Your task to perform on an android device: Go to location settings Image 0: 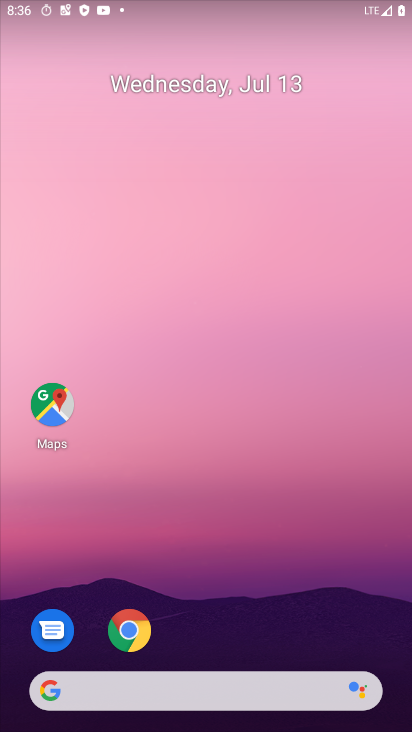
Step 0: drag from (326, 627) to (349, 93)
Your task to perform on an android device: Go to location settings Image 1: 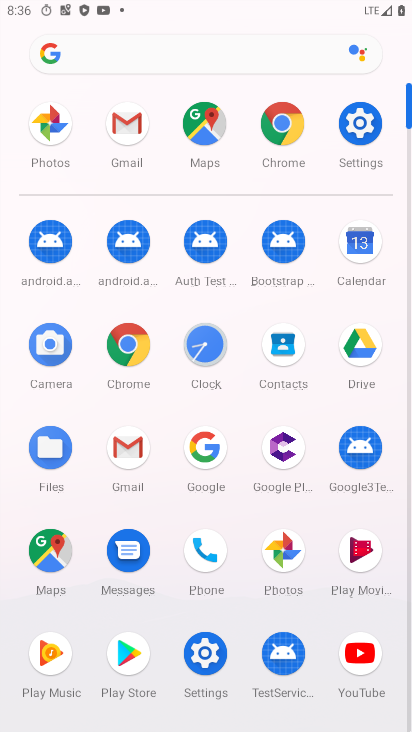
Step 1: click (367, 129)
Your task to perform on an android device: Go to location settings Image 2: 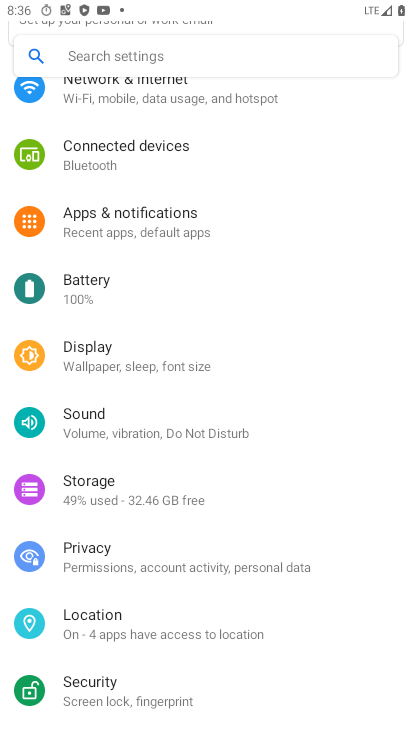
Step 2: drag from (349, 198) to (343, 425)
Your task to perform on an android device: Go to location settings Image 3: 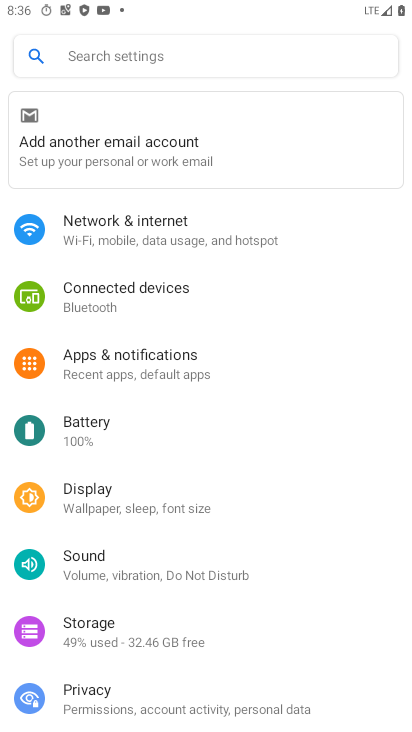
Step 3: drag from (343, 465) to (345, 403)
Your task to perform on an android device: Go to location settings Image 4: 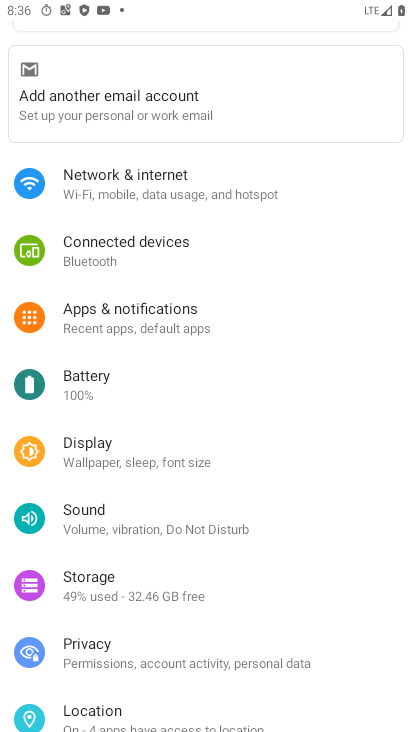
Step 4: drag from (345, 456) to (342, 371)
Your task to perform on an android device: Go to location settings Image 5: 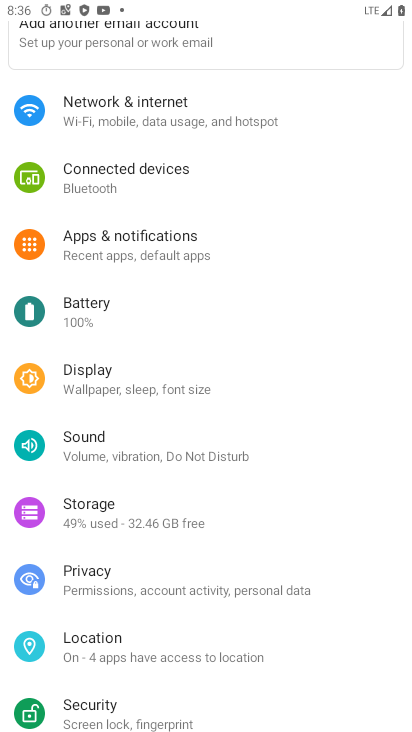
Step 5: drag from (342, 461) to (359, 235)
Your task to perform on an android device: Go to location settings Image 6: 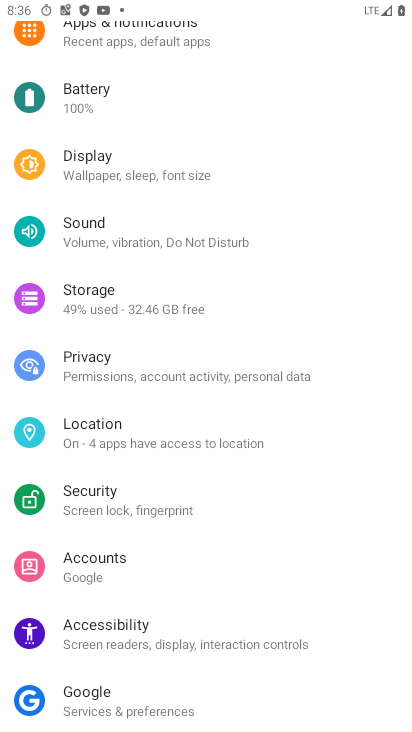
Step 6: drag from (341, 517) to (377, 264)
Your task to perform on an android device: Go to location settings Image 7: 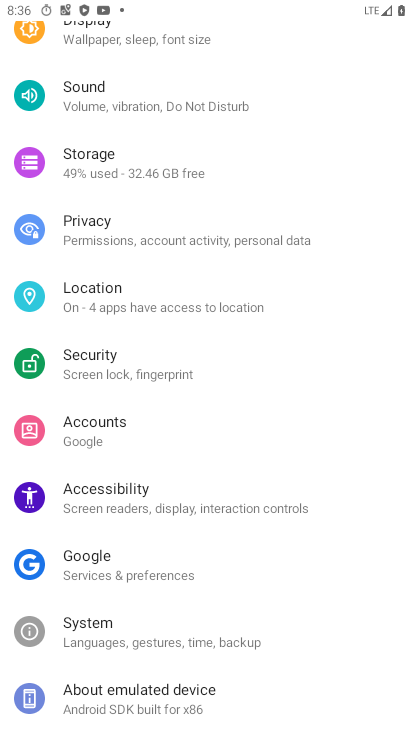
Step 7: click (259, 306)
Your task to perform on an android device: Go to location settings Image 8: 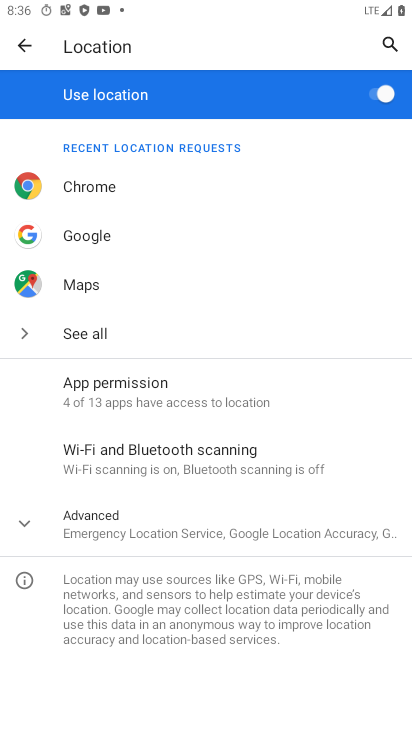
Step 8: task complete